Your task to perform on an android device: move a message to another label in the gmail app Image 0: 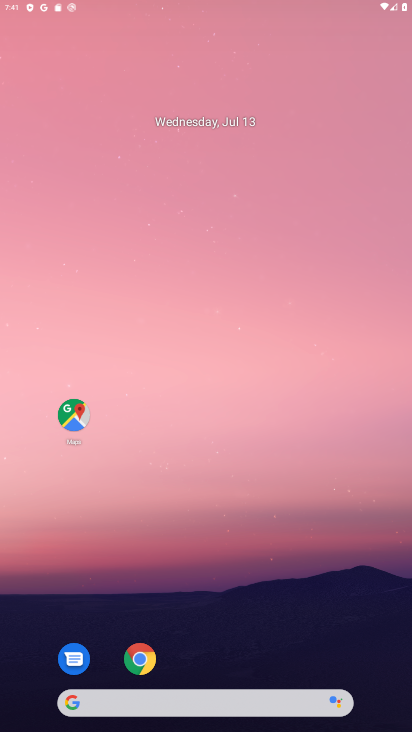
Step 0: click (300, 608)
Your task to perform on an android device: move a message to another label in the gmail app Image 1: 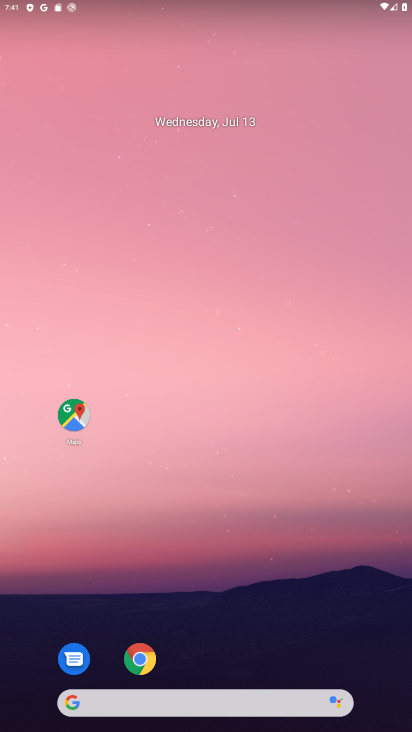
Step 1: drag from (300, 608) to (256, 312)
Your task to perform on an android device: move a message to another label in the gmail app Image 2: 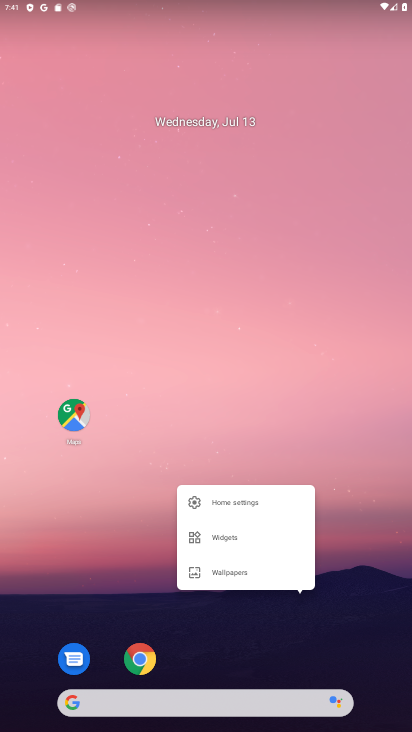
Step 2: click (256, 312)
Your task to perform on an android device: move a message to another label in the gmail app Image 3: 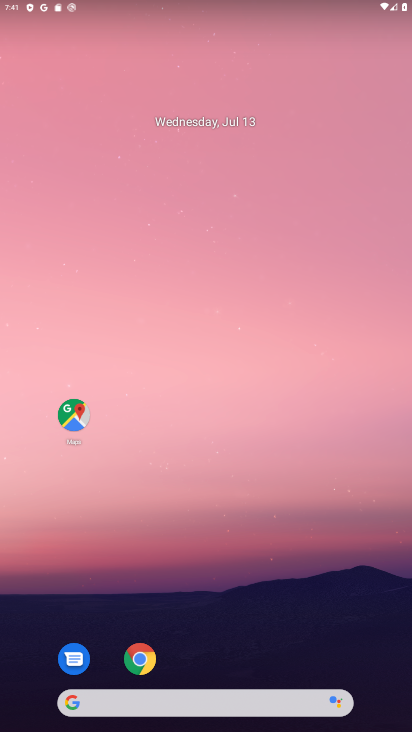
Step 3: drag from (235, 637) to (231, 183)
Your task to perform on an android device: move a message to another label in the gmail app Image 4: 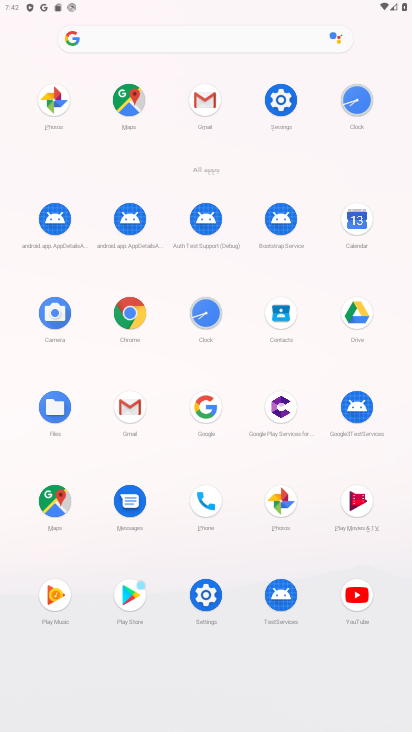
Step 4: click (206, 120)
Your task to perform on an android device: move a message to another label in the gmail app Image 5: 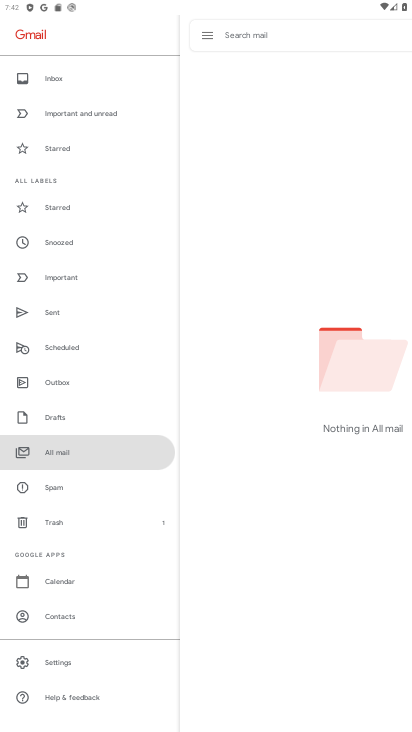
Step 5: task complete